Your task to perform on an android device: Go to wifi settings Image 0: 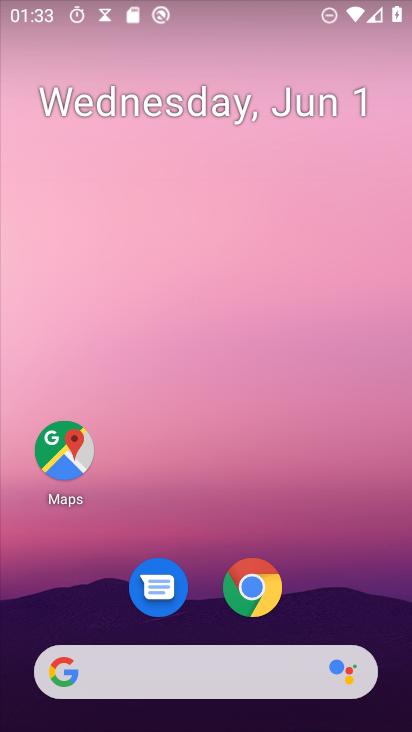
Step 0: drag from (325, 605) to (335, 4)
Your task to perform on an android device: Go to wifi settings Image 1: 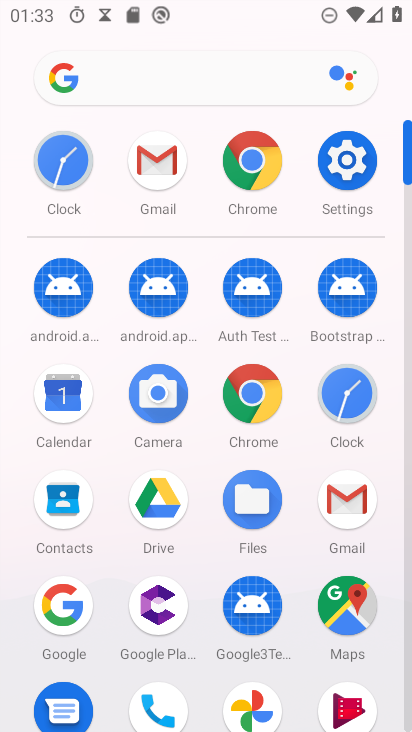
Step 1: click (323, 191)
Your task to perform on an android device: Go to wifi settings Image 2: 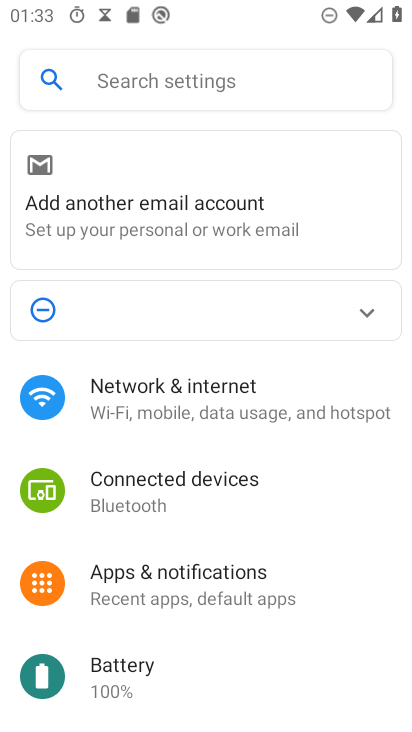
Step 2: click (190, 415)
Your task to perform on an android device: Go to wifi settings Image 3: 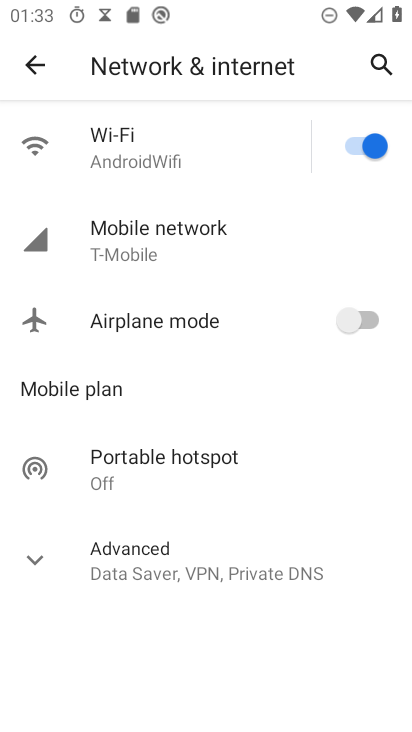
Step 3: click (112, 128)
Your task to perform on an android device: Go to wifi settings Image 4: 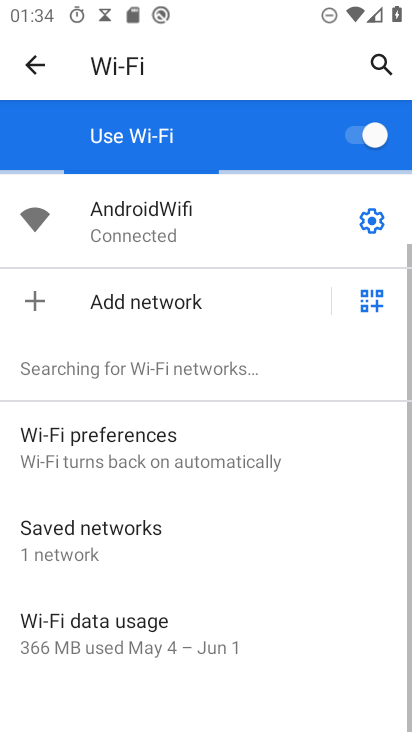
Step 4: task complete